Your task to perform on an android device: Open calendar and show me the fourth week of next month Image 0: 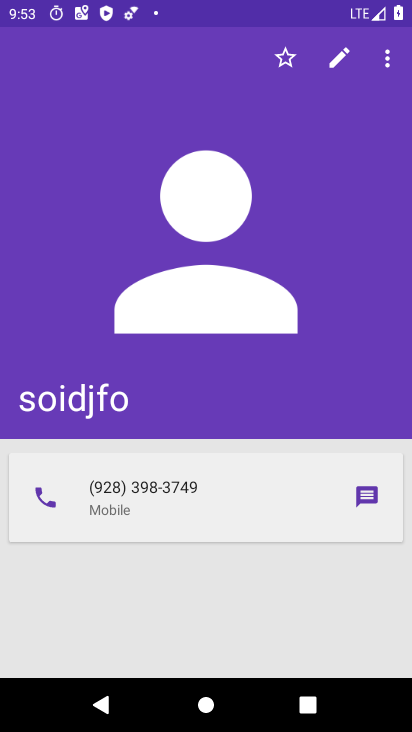
Step 0: press home button
Your task to perform on an android device: Open calendar and show me the fourth week of next month Image 1: 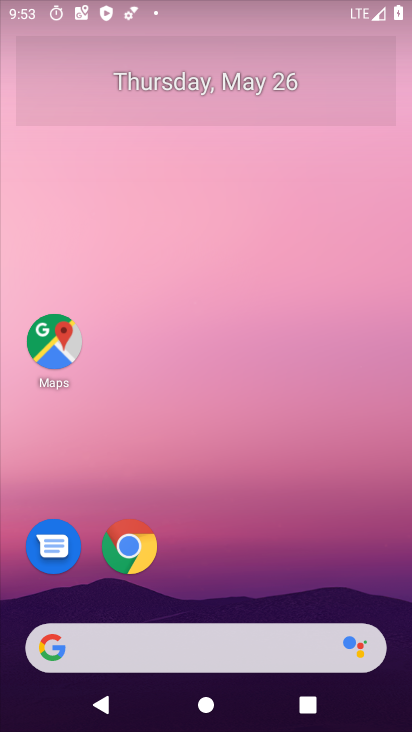
Step 1: drag from (247, 410) to (231, 112)
Your task to perform on an android device: Open calendar and show me the fourth week of next month Image 2: 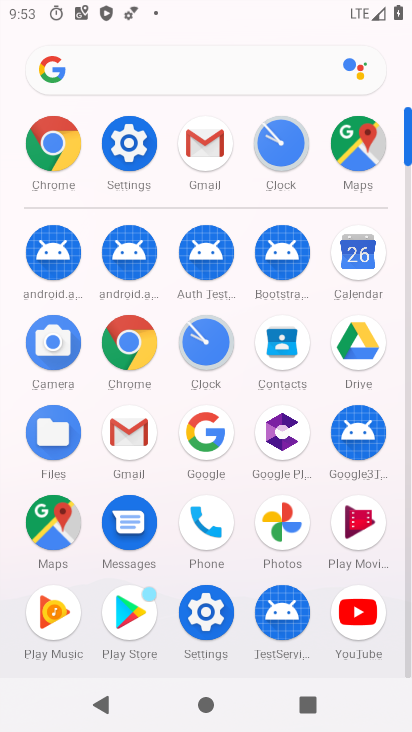
Step 2: click (363, 273)
Your task to perform on an android device: Open calendar and show me the fourth week of next month Image 3: 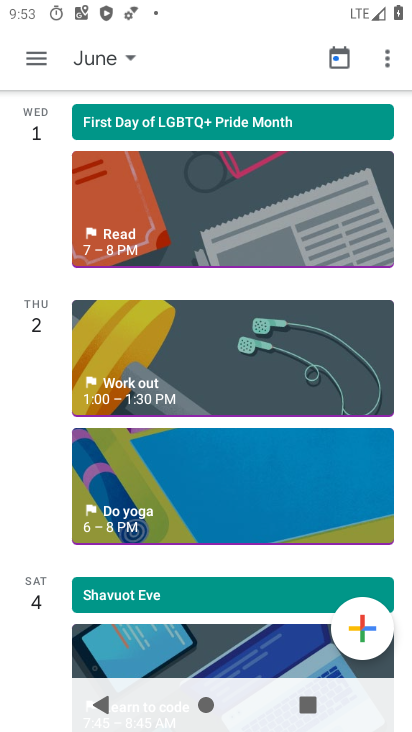
Step 3: click (85, 63)
Your task to perform on an android device: Open calendar and show me the fourth week of next month Image 4: 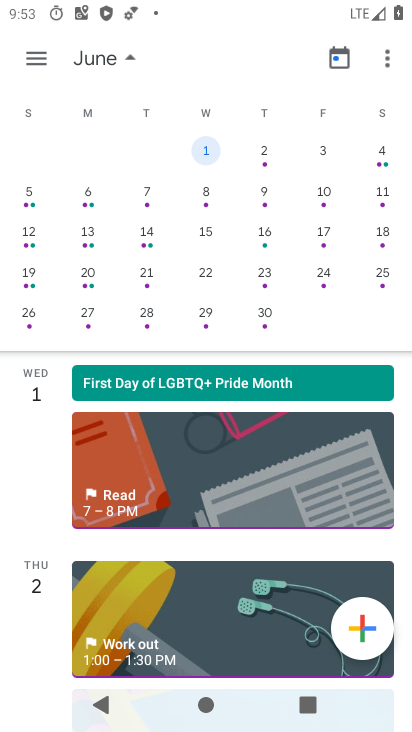
Step 4: click (26, 275)
Your task to perform on an android device: Open calendar and show me the fourth week of next month Image 5: 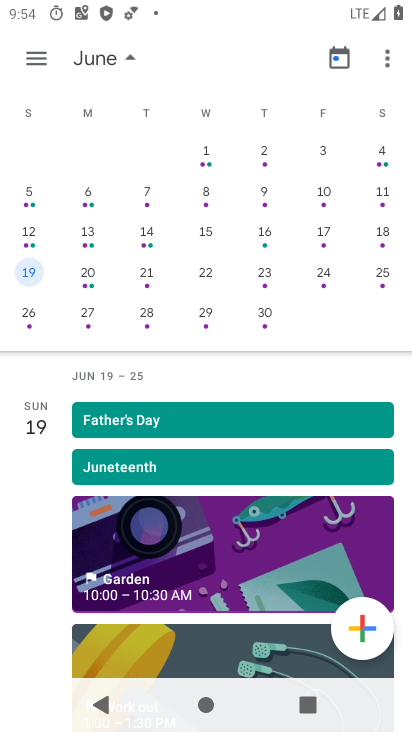
Step 5: task complete